Your task to perform on an android device: make emails show in primary in the gmail app Image 0: 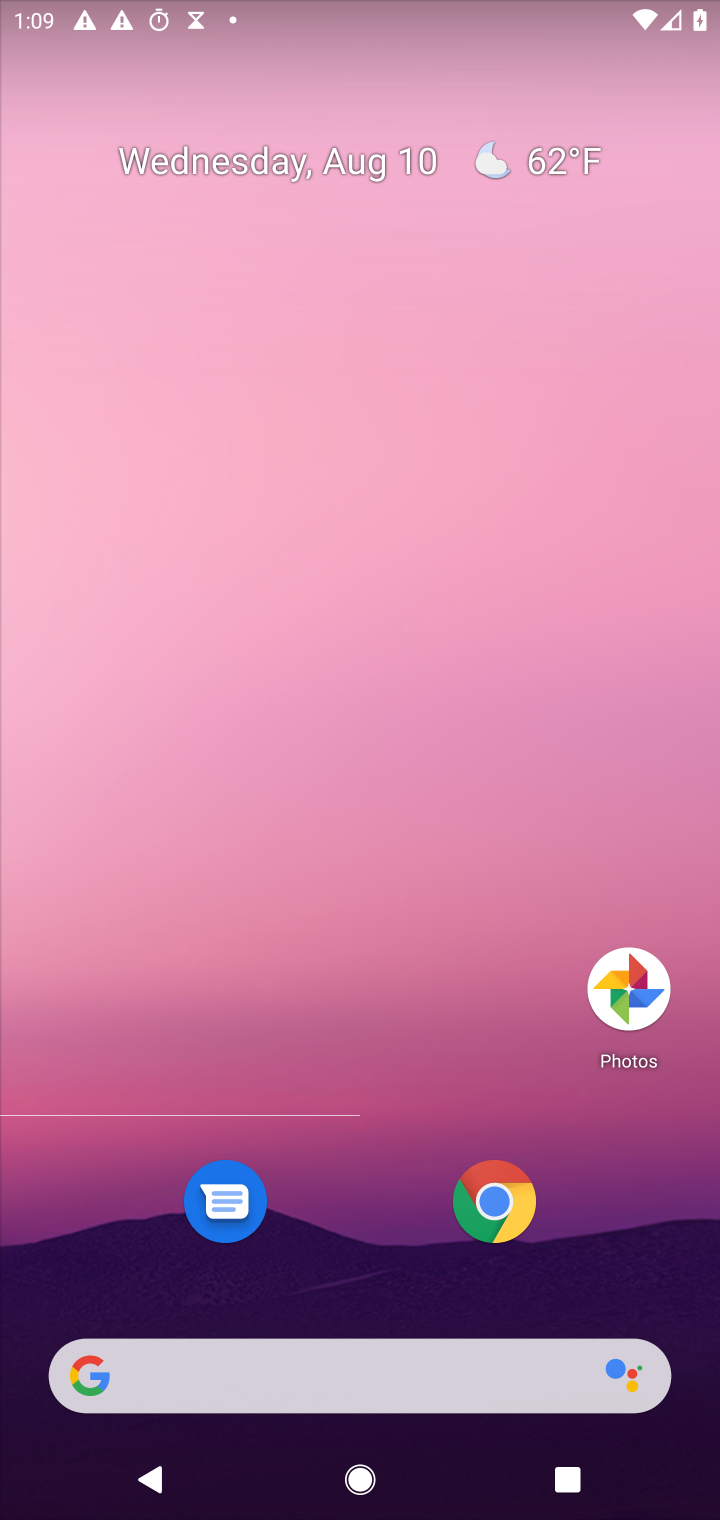
Step 0: press home button
Your task to perform on an android device: make emails show in primary in the gmail app Image 1: 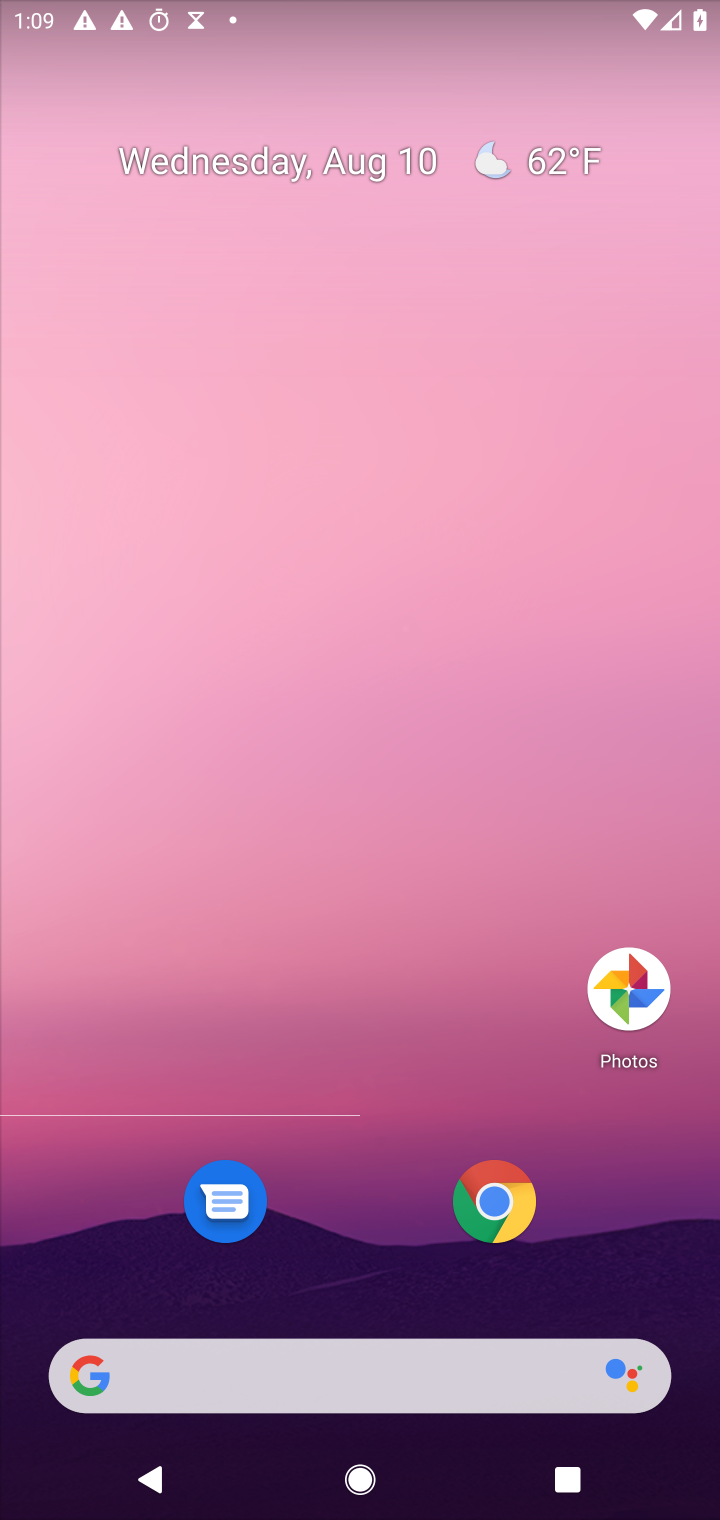
Step 1: drag from (380, 1102) to (416, 287)
Your task to perform on an android device: make emails show in primary in the gmail app Image 2: 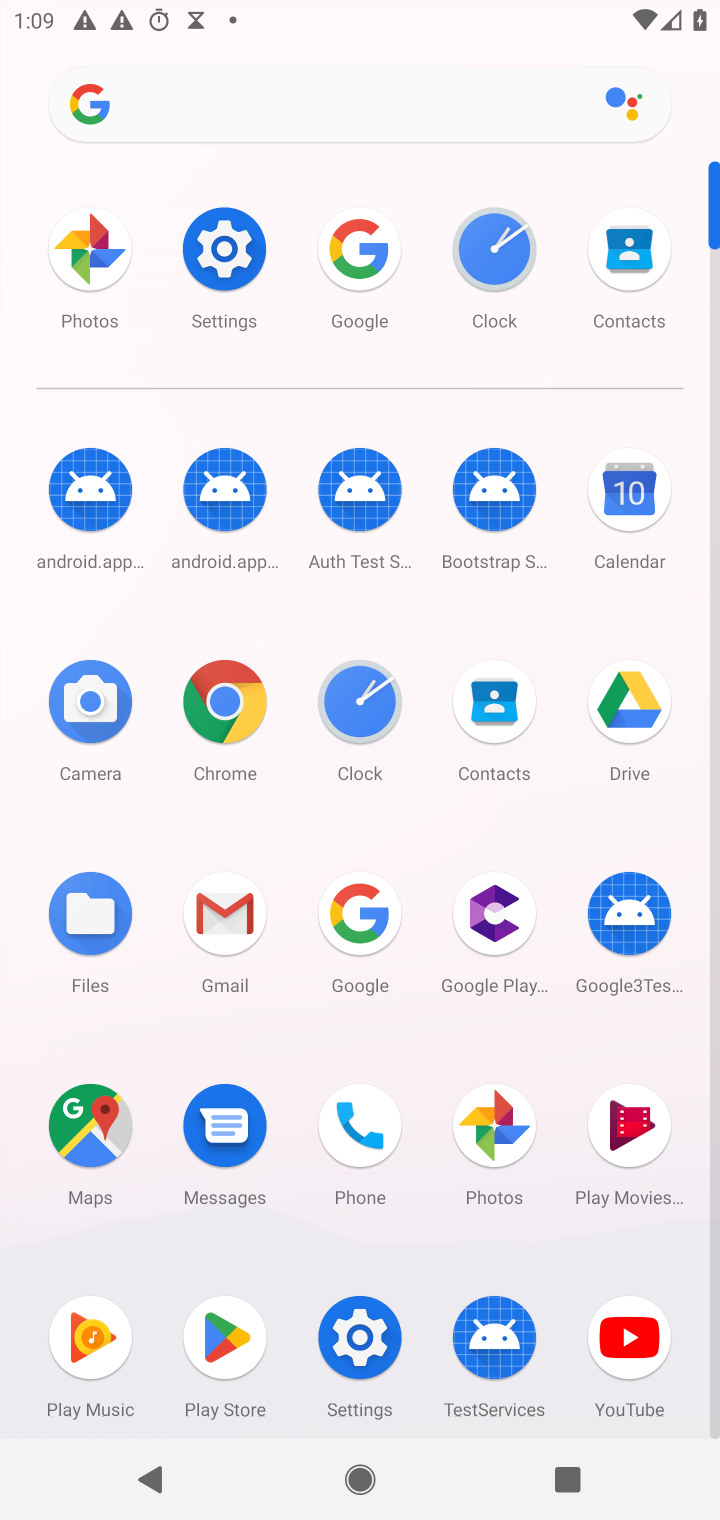
Step 2: click (235, 928)
Your task to perform on an android device: make emails show in primary in the gmail app Image 3: 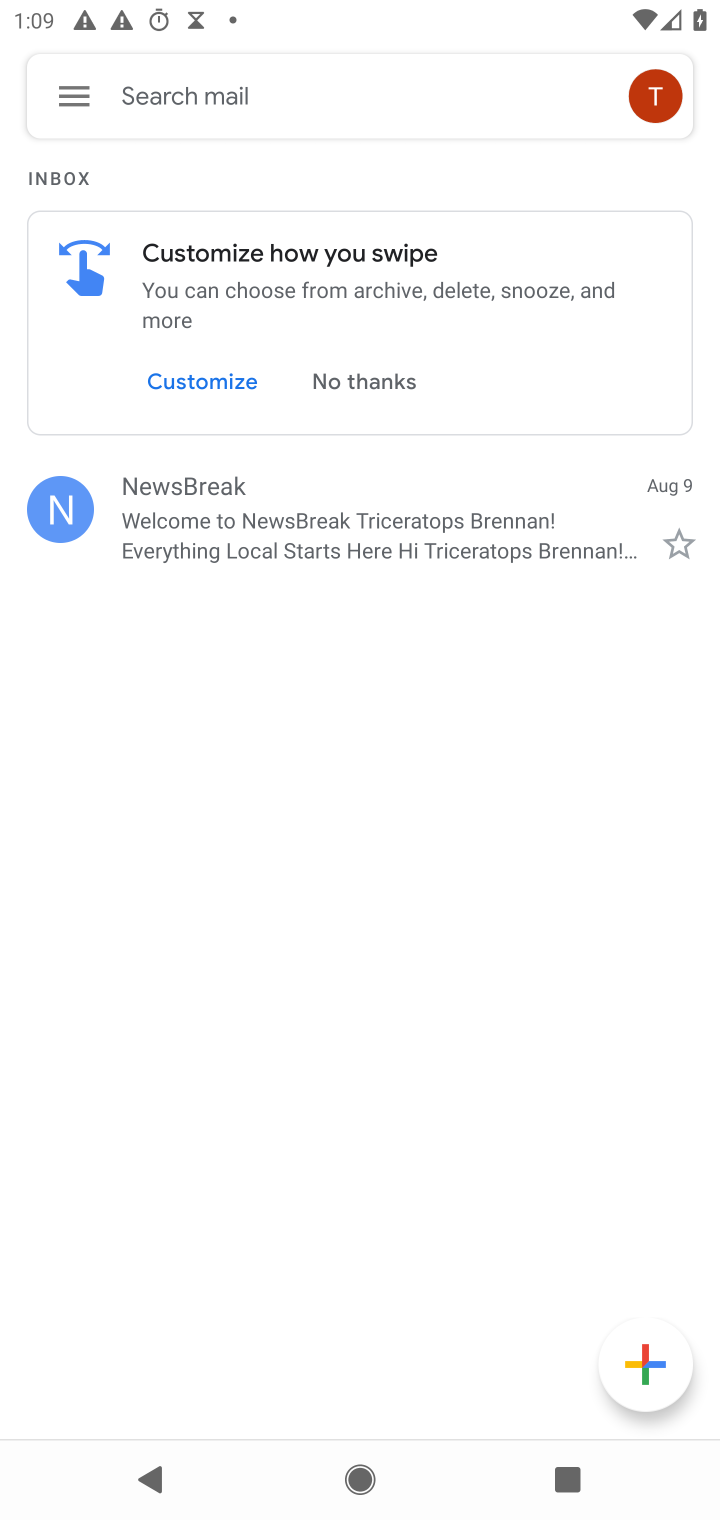
Step 3: click (88, 108)
Your task to perform on an android device: make emails show in primary in the gmail app Image 4: 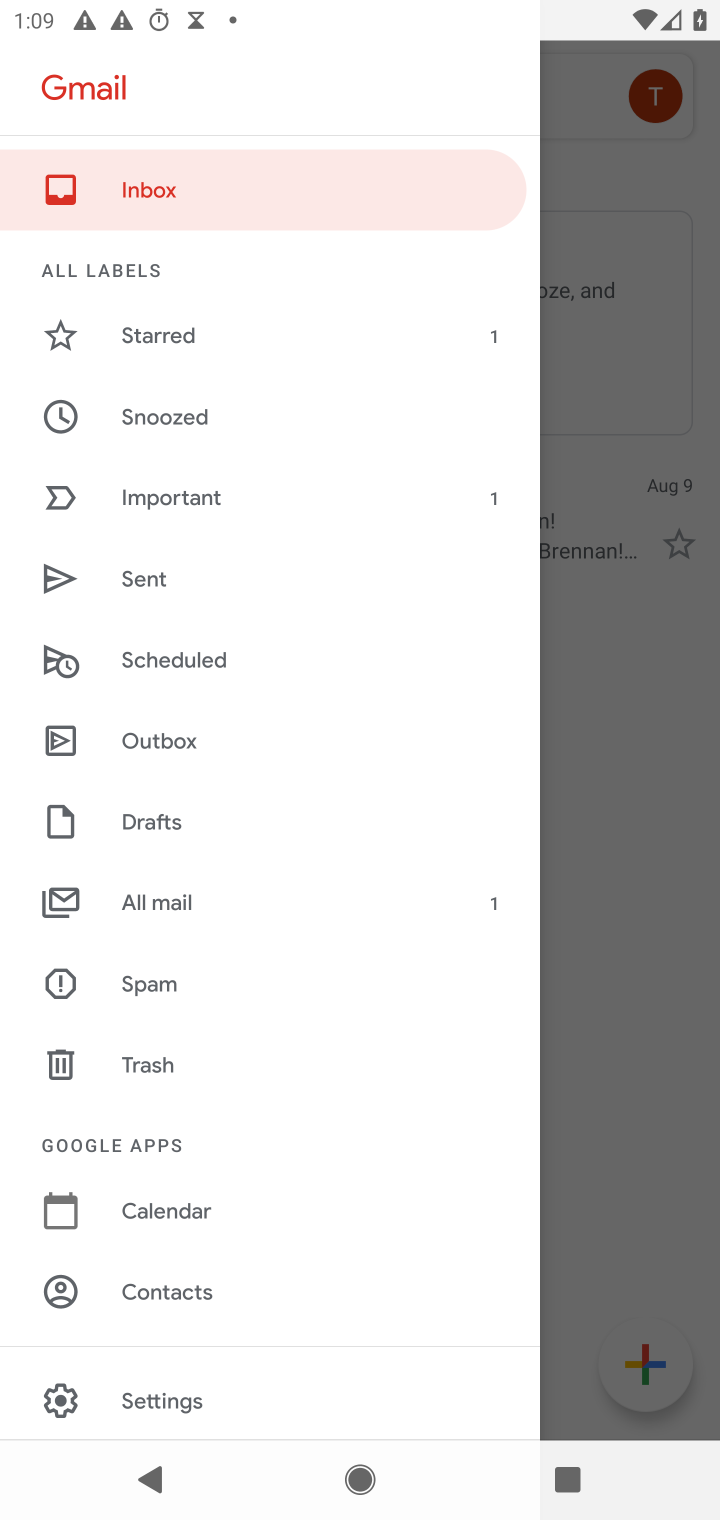
Step 4: click (145, 1396)
Your task to perform on an android device: make emails show in primary in the gmail app Image 5: 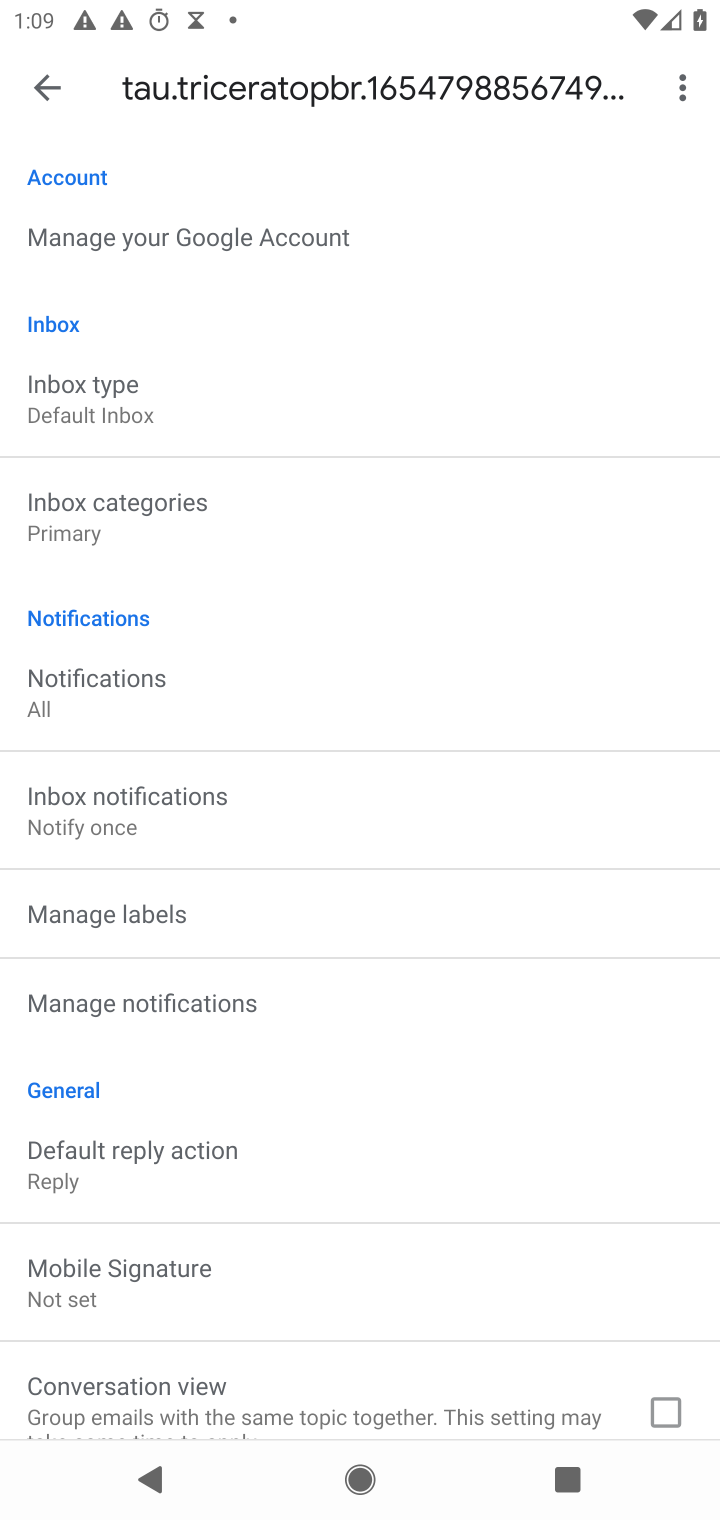
Step 5: click (129, 523)
Your task to perform on an android device: make emails show in primary in the gmail app Image 6: 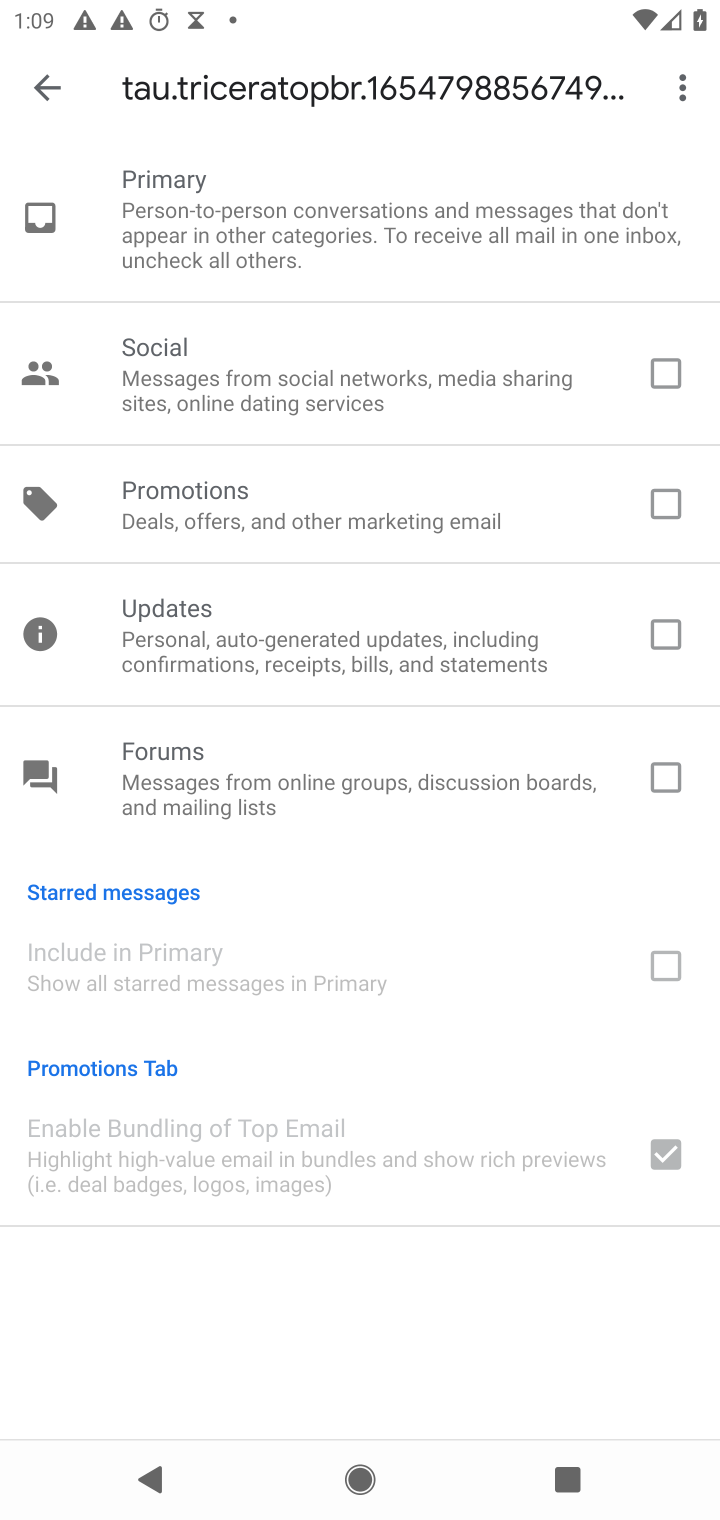
Step 6: task complete